Your task to perform on an android device: Open Youtube and go to the subscriptions tab Image 0: 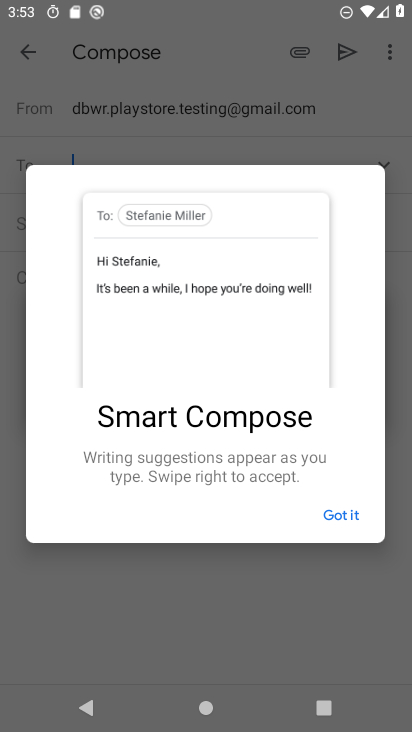
Step 0: press home button
Your task to perform on an android device: Open Youtube and go to the subscriptions tab Image 1: 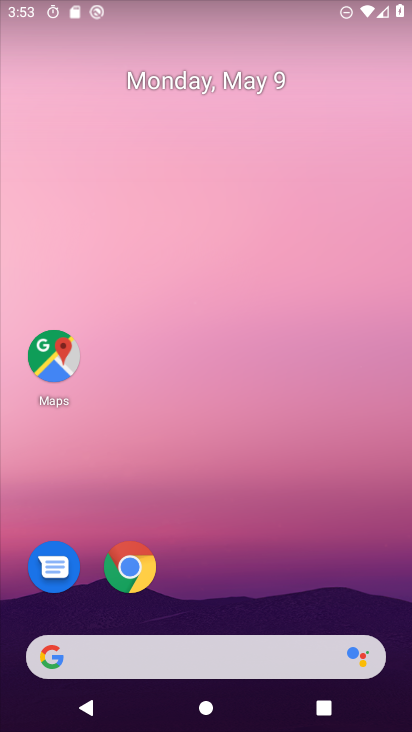
Step 1: drag from (312, 519) to (335, 85)
Your task to perform on an android device: Open Youtube and go to the subscriptions tab Image 2: 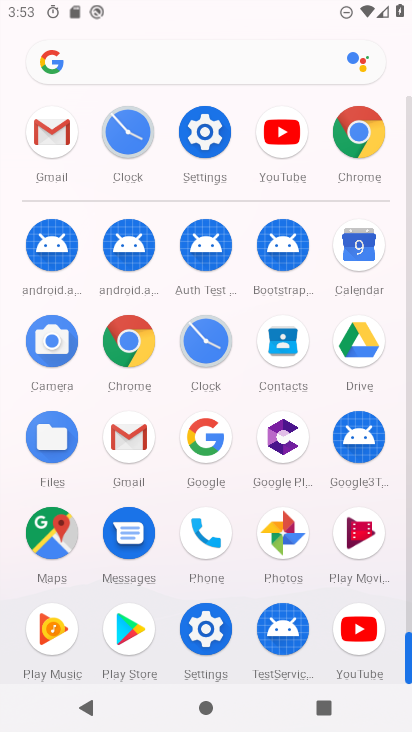
Step 2: click (284, 133)
Your task to perform on an android device: Open Youtube and go to the subscriptions tab Image 3: 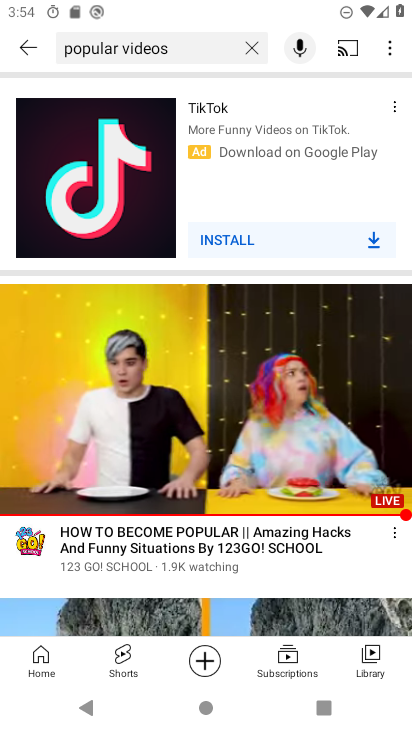
Step 3: click (295, 655)
Your task to perform on an android device: Open Youtube and go to the subscriptions tab Image 4: 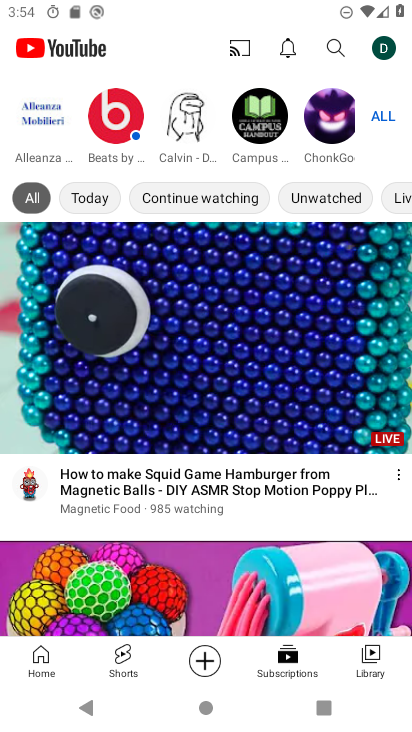
Step 4: task complete